Your task to perform on an android device: turn smart compose on in the gmail app Image 0: 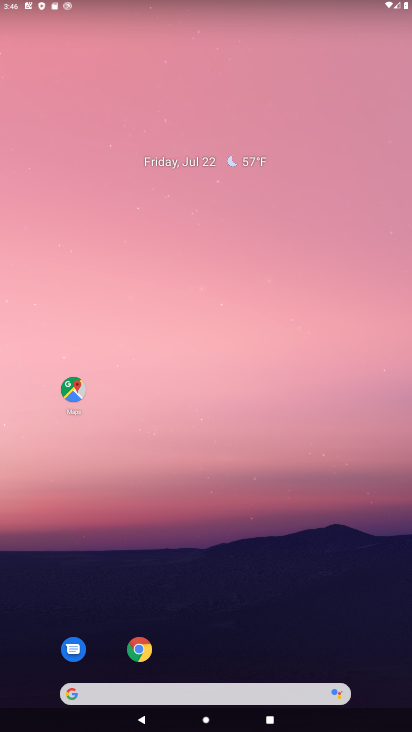
Step 0: drag from (24, 668) to (253, 146)
Your task to perform on an android device: turn smart compose on in the gmail app Image 1: 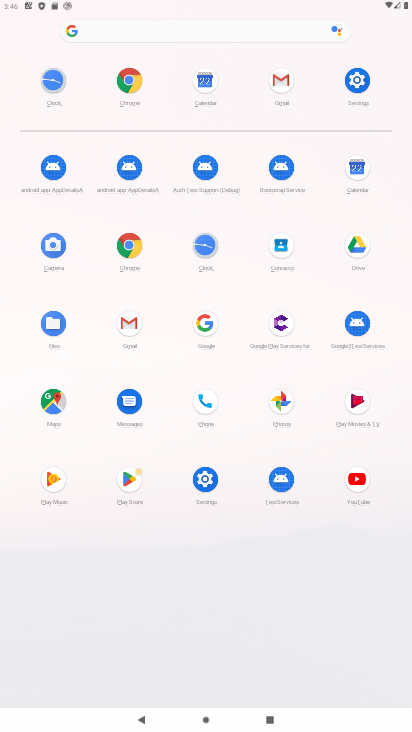
Step 1: click (129, 328)
Your task to perform on an android device: turn smart compose on in the gmail app Image 2: 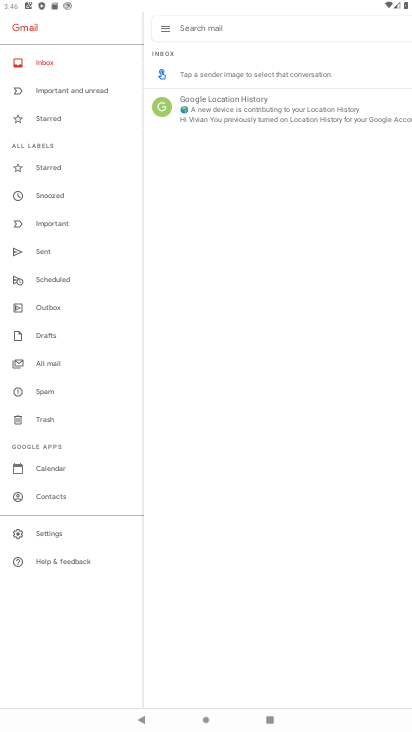
Step 2: click (46, 538)
Your task to perform on an android device: turn smart compose on in the gmail app Image 3: 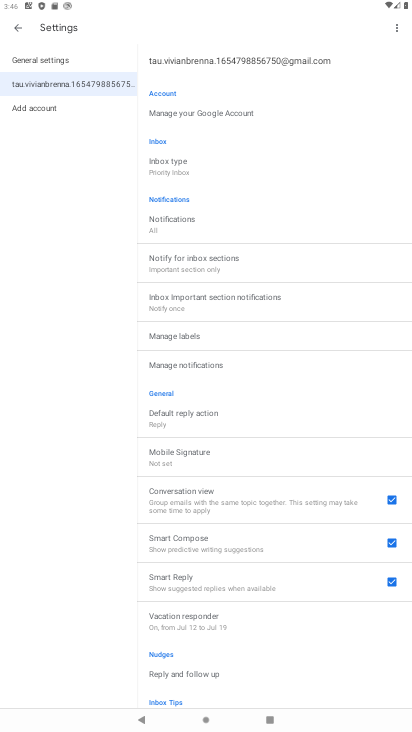
Step 3: task complete